Your task to perform on an android device: What's the weather today? Image 0: 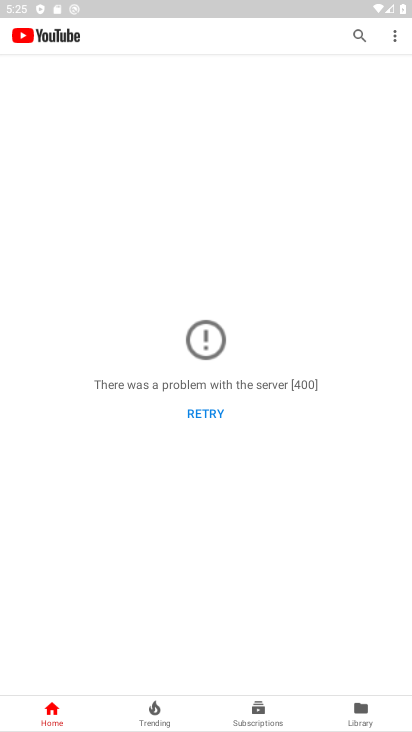
Step 0: press home button
Your task to perform on an android device: What's the weather today? Image 1: 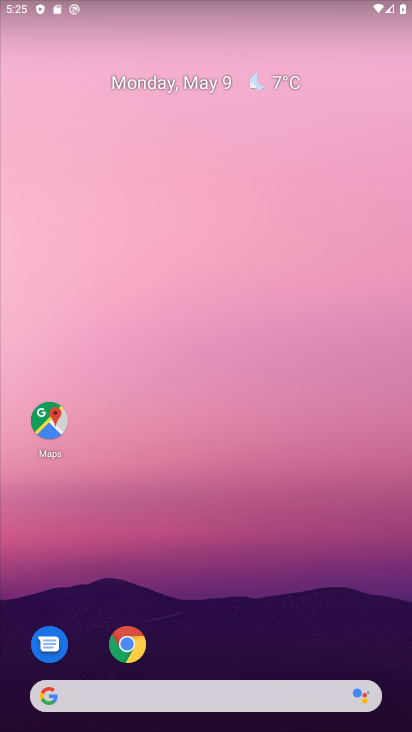
Step 1: click (278, 83)
Your task to perform on an android device: What's the weather today? Image 2: 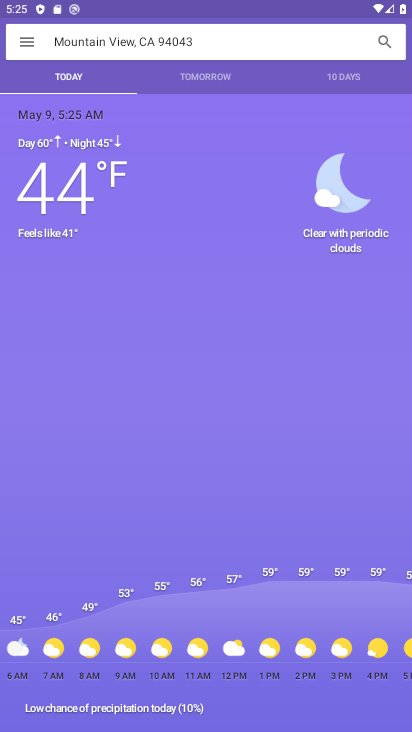
Step 2: task complete